Your task to perform on an android device: turn on javascript in the chrome app Image 0: 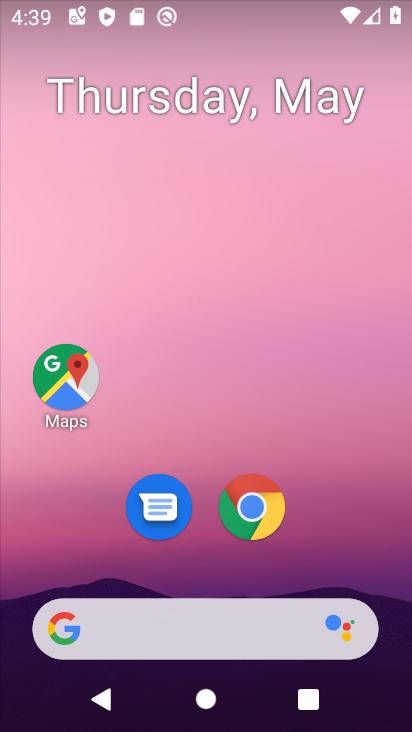
Step 0: click (180, 126)
Your task to perform on an android device: turn on javascript in the chrome app Image 1: 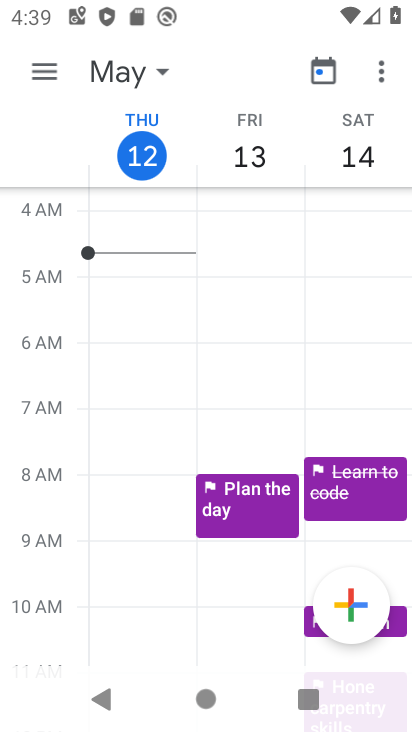
Step 1: drag from (305, 561) to (147, 185)
Your task to perform on an android device: turn on javascript in the chrome app Image 2: 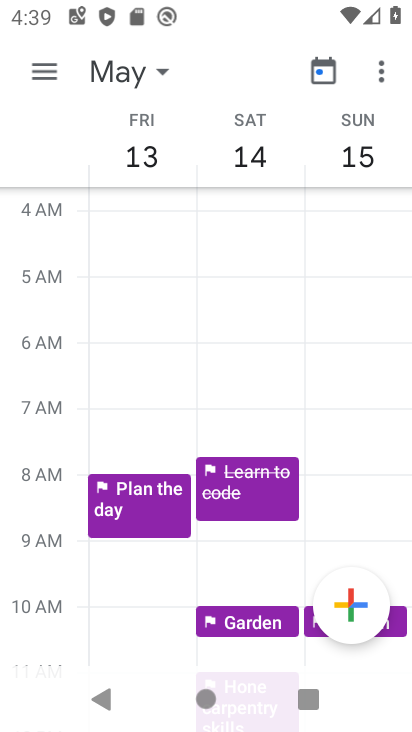
Step 2: press back button
Your task to perform on an android device: turn on javascript in the chrome app Image 3: 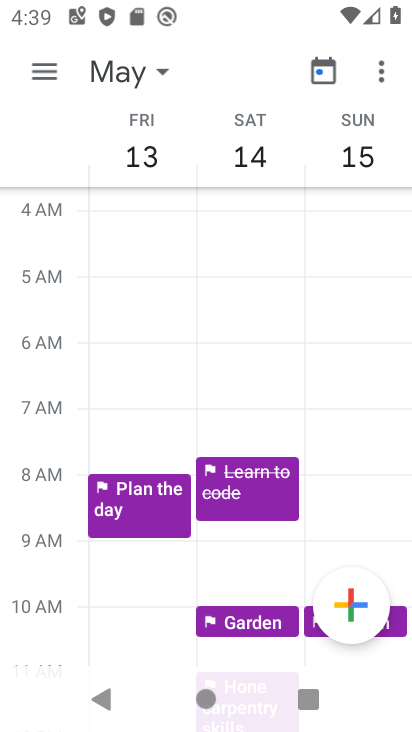
Step 3: press back button
Your task to perform on an android device: turn on javascript in the chrome app Image 4: 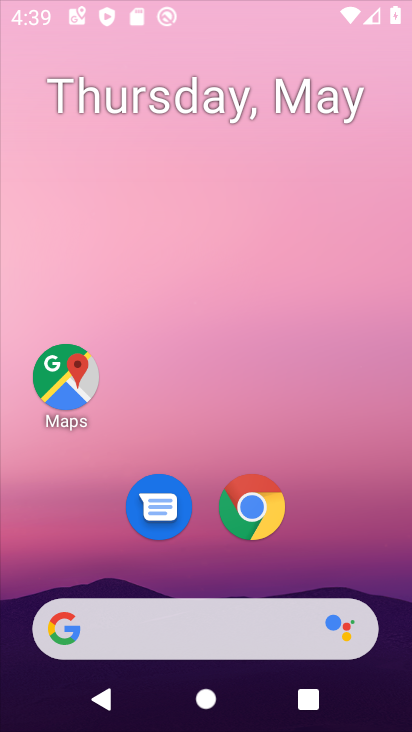
Step 4: press back button
Your task to perform on an android device: turn on javascript in the chrome app Image 5: 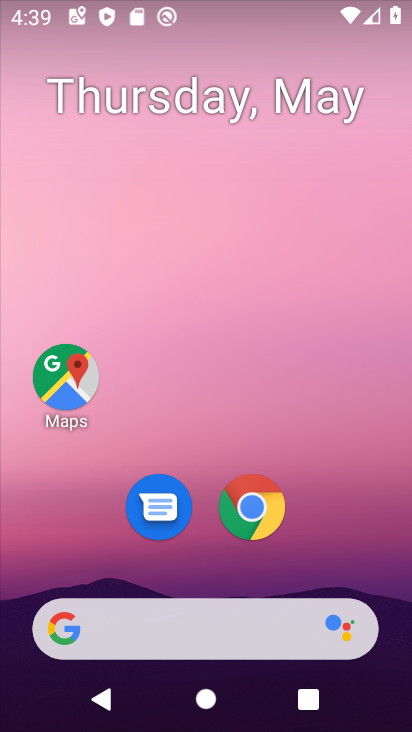
Step 5: press back button
Your task to perform on an android device: turn on javascript in the chrome app Image 6: 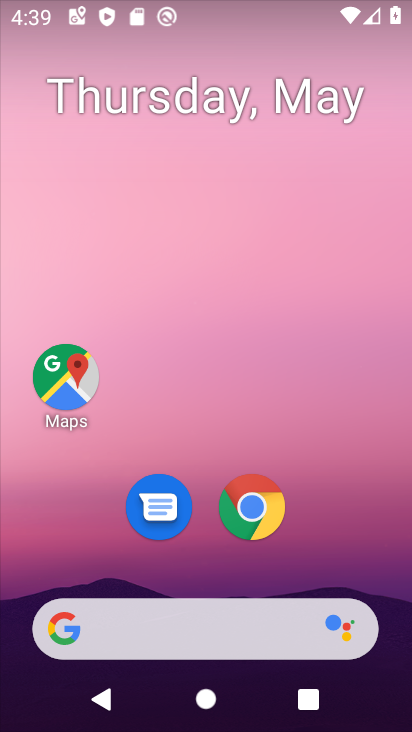
Step 6: press back button
Your task to perform on an android device: turn on javascript in the chrome app Image 7: 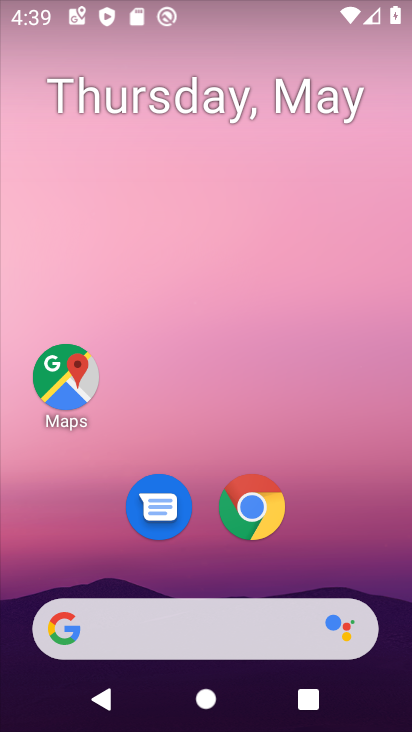
Step 7: click (67, 111)
Your task to perform on an android device: turn on javascript in the chrome app Image 8: 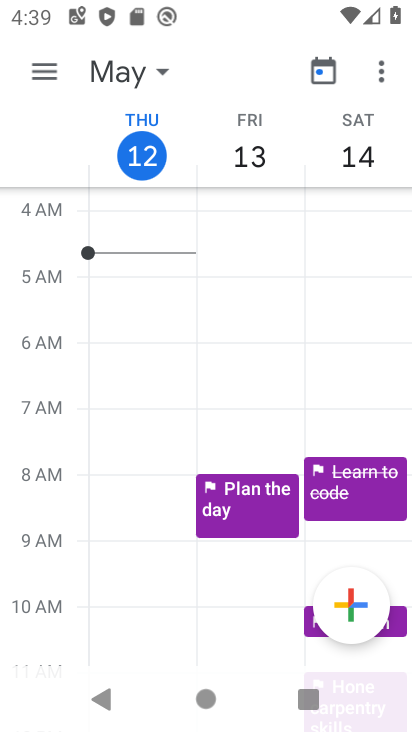
Step 8: press home button
Your task to perform on an android device: turn on javascript in the chrome app Image 9: 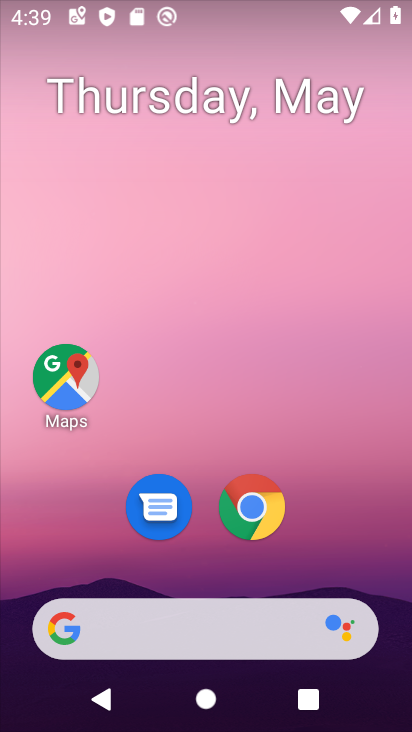
Step 9: drag from (341, 570) to (144, 133)
Your task to perform on an android device: turn on javascript in the chrome app Image 10: 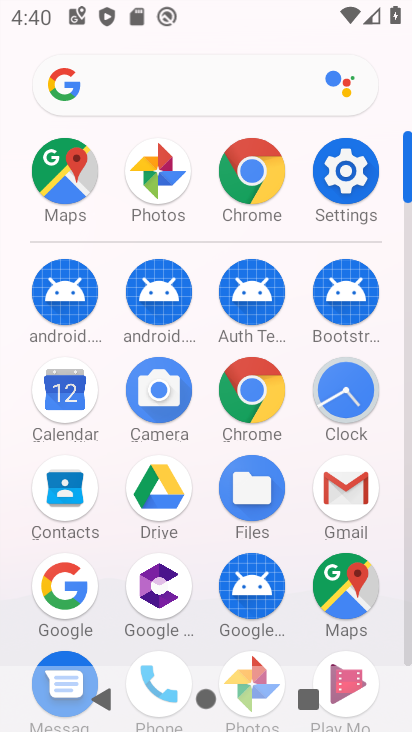
Step 10: drag from (320, 493) to (146, 80)
Your task to perform on an android device: turn on javascript in the chrome app Image 11: 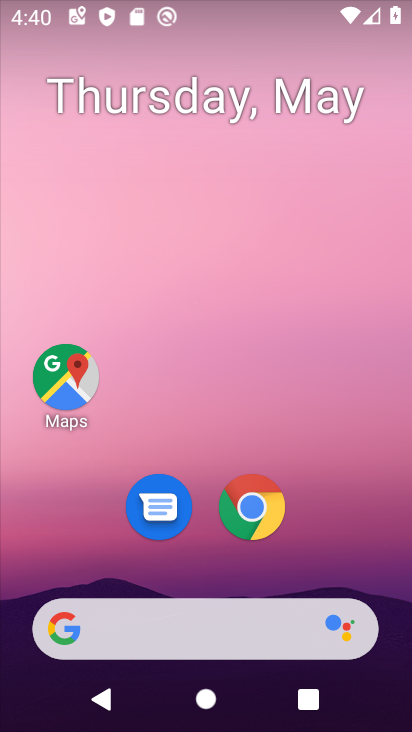
Step 11: click (94, 132)
Your task to perform on an android device: turn on javascript in the chrome app Image 12: 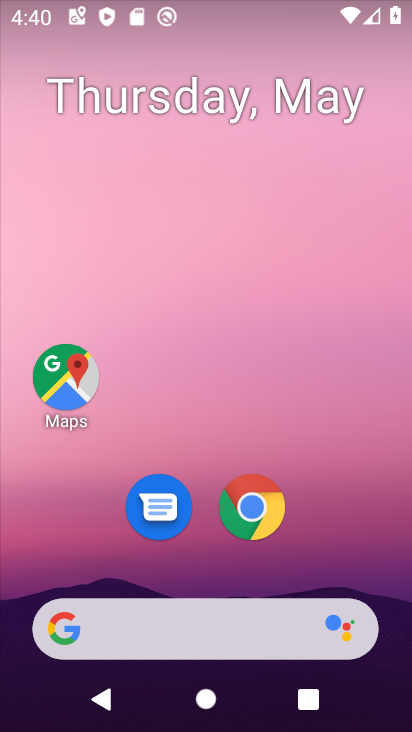
Step 12: drag from (278, 495) to (119, 23)
Your task to perform on an android device: turn on javascript in the chrome app Image 13: 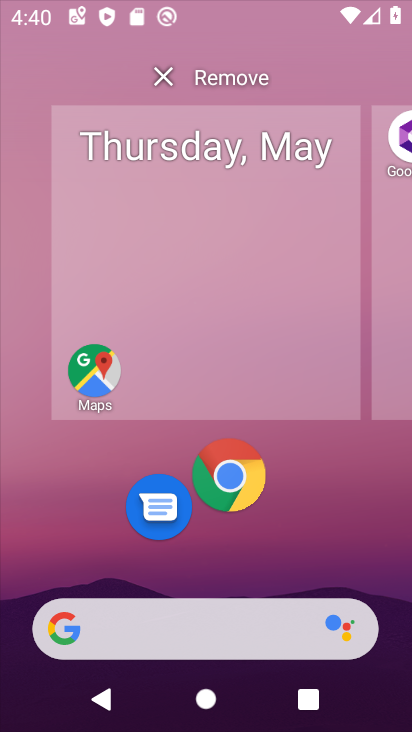
Step 13: drag from (258, 470) to (97, 18)
Your task to perform on an android device: turn on javascript in the chrome app Image 14: 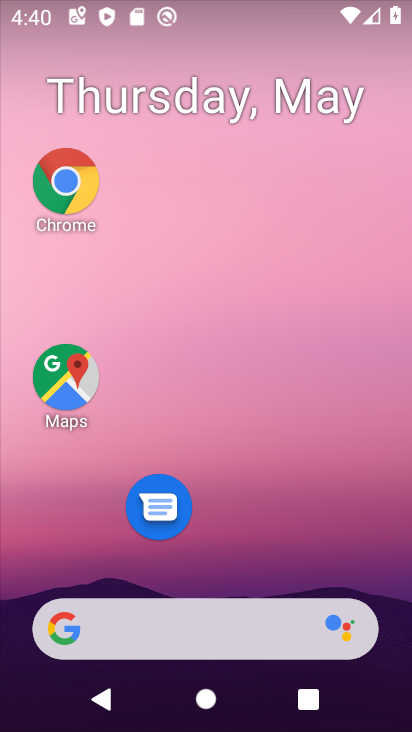
Step 14: drag from (341, 608) to (256, 162)
Your task to perform on an android device: turn on javascript in the chrome app Image 15: 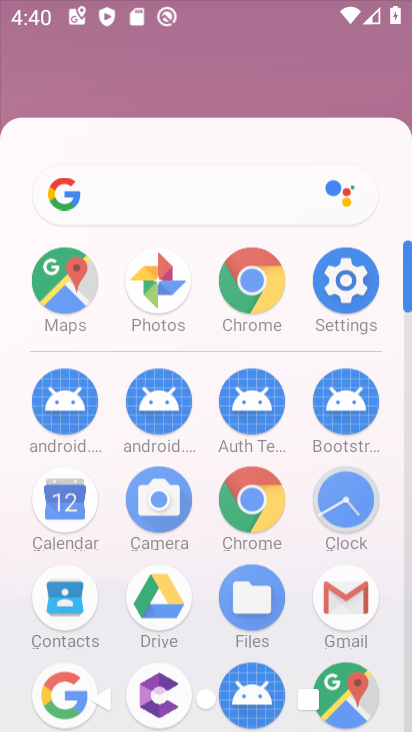
Step 15: click (249, 168)
Your task to perform on an android device: turn on javascript in the chrome app Image 16: 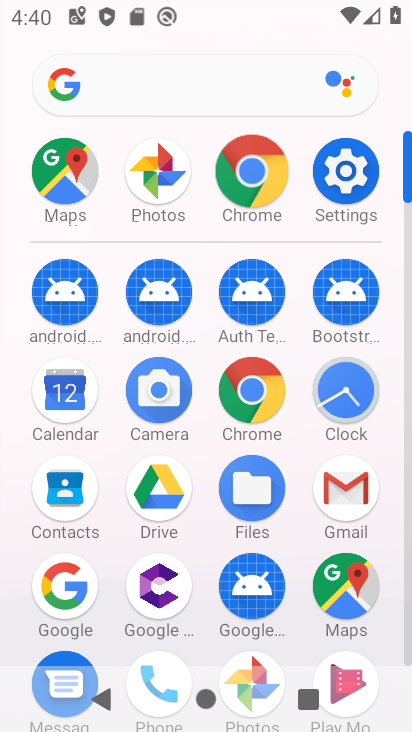
Step 16: click (256, 171)
Your task to perform on an android device: turn on javascript in the chrome app Image 17: 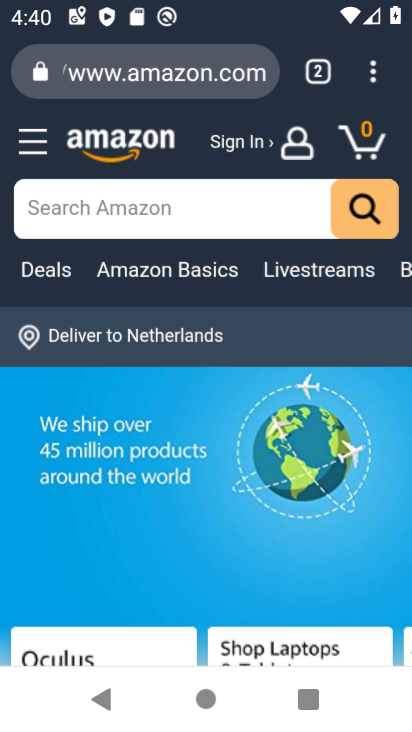
Step 17: click (255, 504)
Your task to perform on an android device: turn on javascript in the chrome app Image 18: 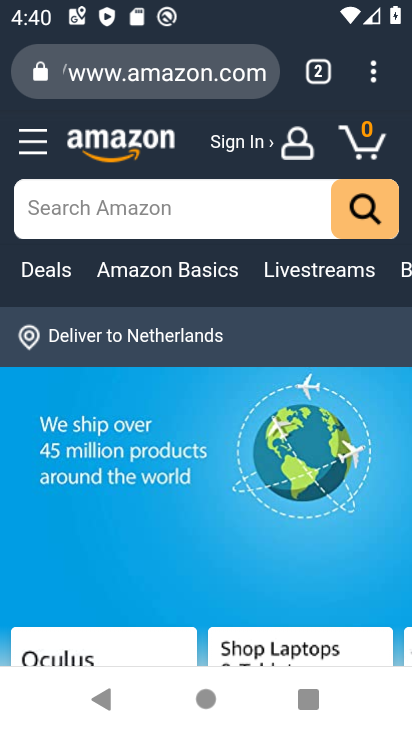
Step 18: click (252, 502)
Your task to perform on an android device: turn on javascript in the chrome app Image 19: 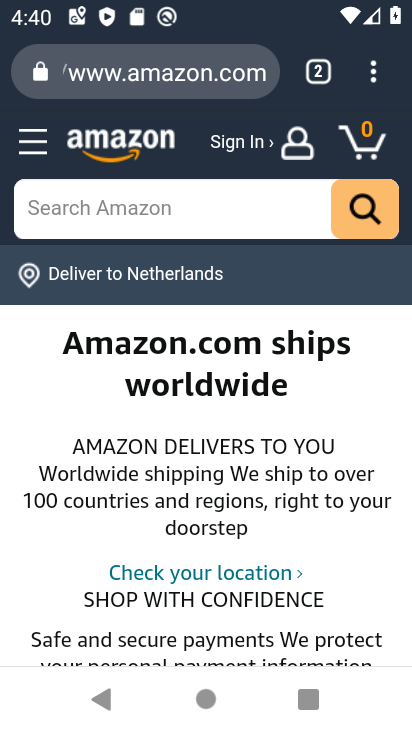
Step 19: click (77, 155)
Your task to perform on an android device: turn on javascript in the chrome app Image 20: 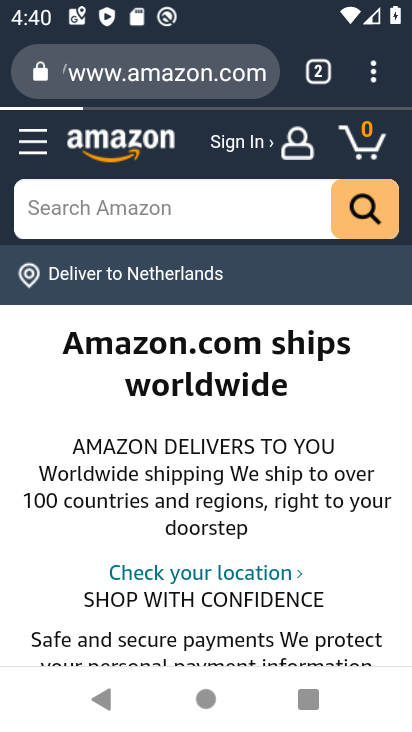
Step 20: click (248, 280)
Your task to perform on an android device: turn on javascript in the chrome app Image 21: 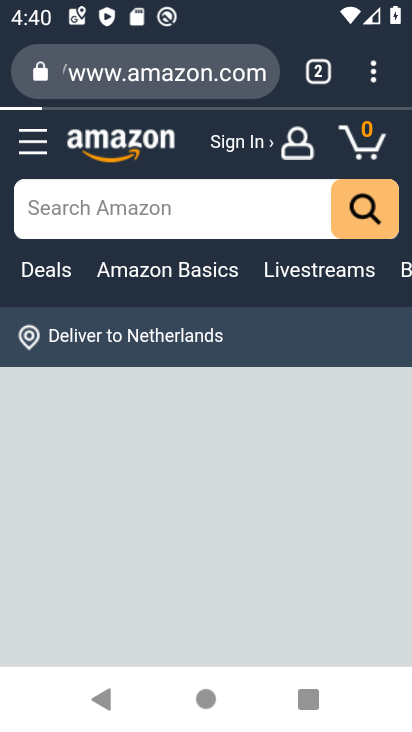
Step 21: drag from (369, 82) to (119, 509)
Your task to perform on an android device: turn on javascript in the chrome app Image 22: 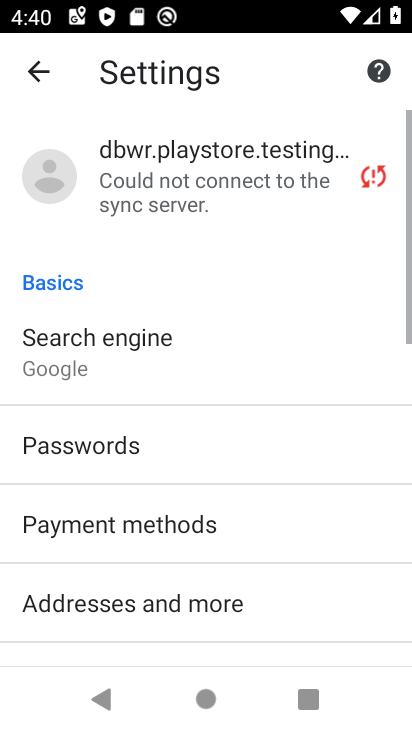
Step 22: click (119, 501)
Your task to perform on an android device: turn on javascript in the chrome app Image 23: 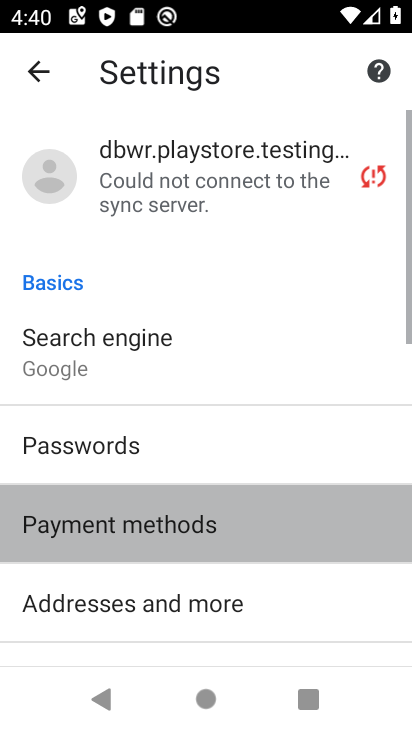
Step 23: click (138, 505)
Your task to perform on an android device: turn on javascript in the chrome app Image 24: 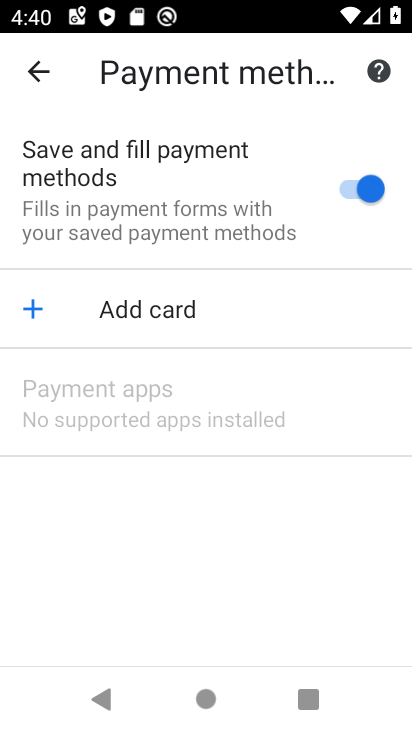
Step 24: click (22, 64)
Your task to perform on an android device: turn on javascript in the chrome app Image 25: 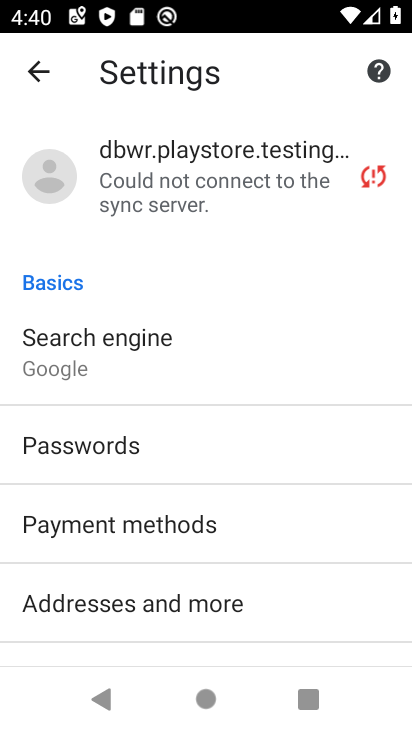
Step 25: click (121, 184)
Your task to perform on an android device: turn on javascript in the chrome app Image 26: 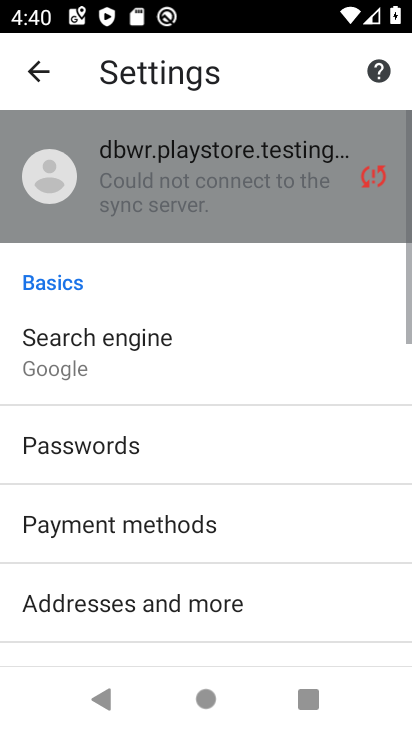
Step 26: drag from (185, 420) to (65, 99)
Your task to perform on an android device: turn on javascript in the chrome app Image 27: 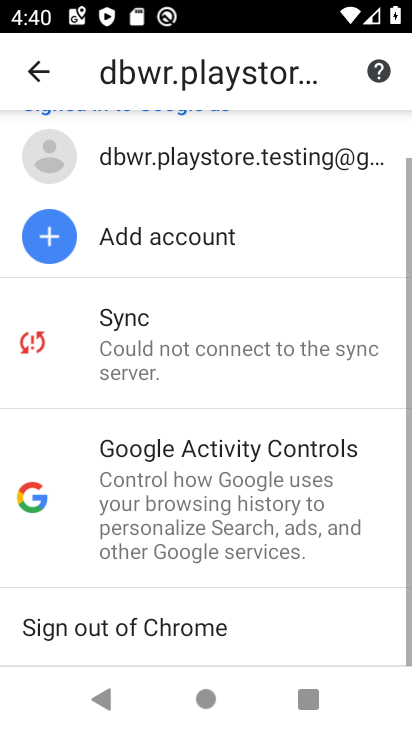
Step 27: drag from (133, 465) to (79, 288)
Your task to perform on an android device: turn on javascript in the chrome app Image 28: 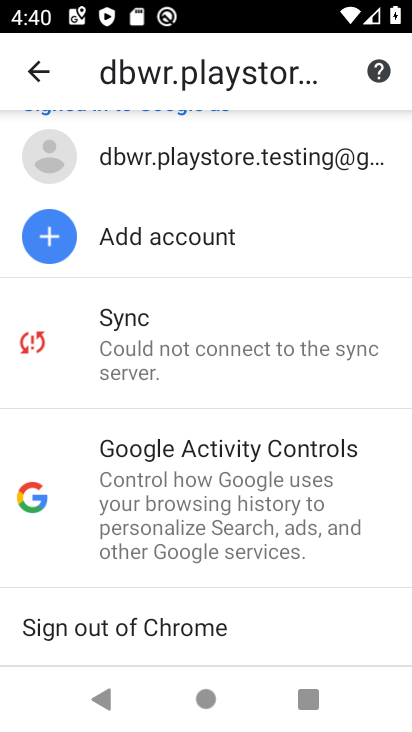
Step 28: click (36, 76)
Your task to perform on an android device: turn on javascript in the chrome app Image 29: 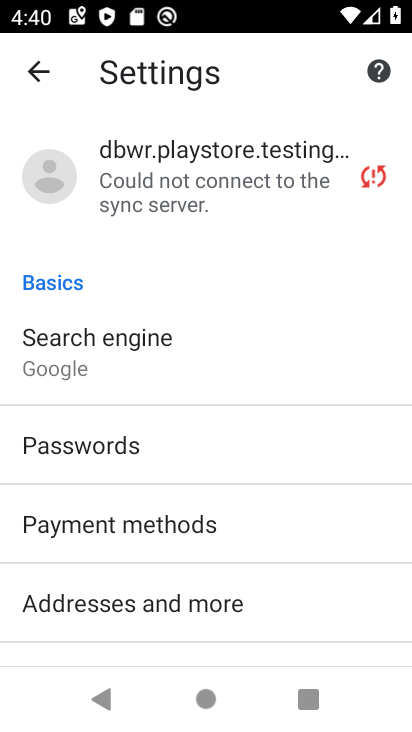
Step 29: drag from (132, 570) to (62, 322)
Your task to perform on an android device: turn on javascript in the chrome app Image 30: 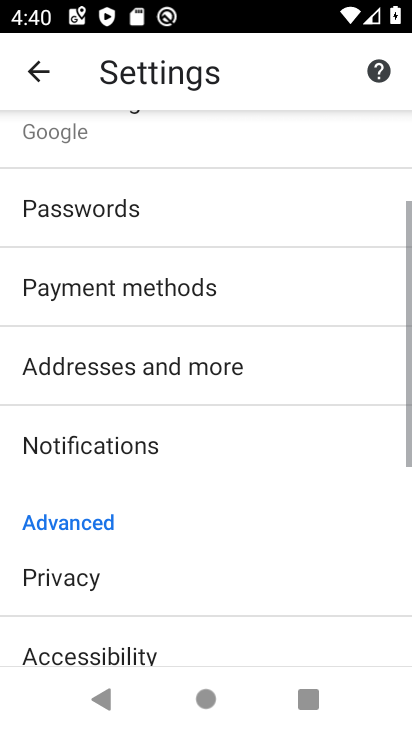
Step 30: drag from (159, 358) to (96, 148)
Your task to perform on an android device: turn on javascript in the chrome app Image 31: 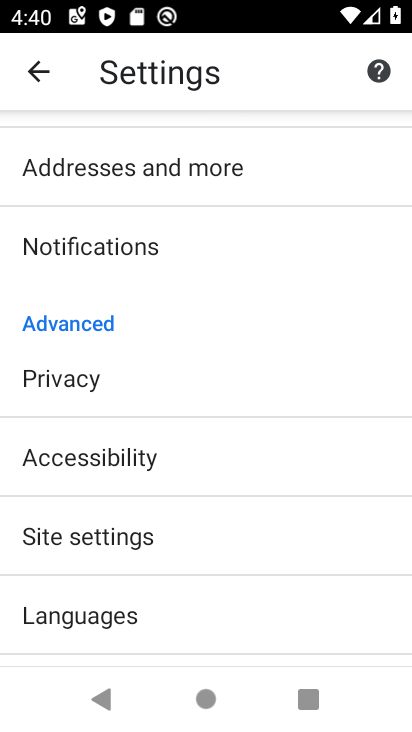
Step 31: drag from (165, 555) to (101, 136)
Your task to perform on an android device: turn on javascript in the chrome app Image 32: 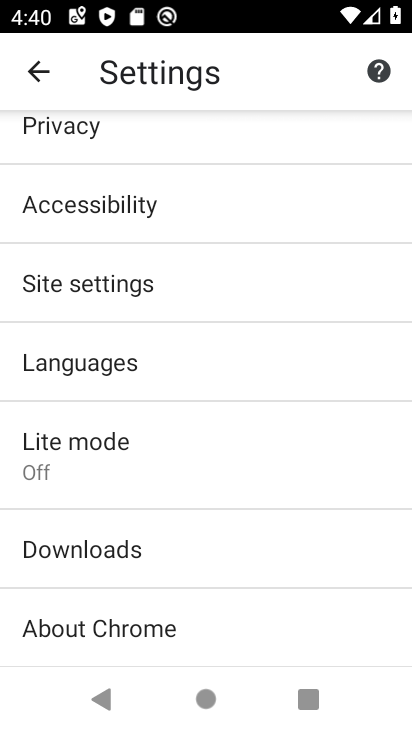
Step 32: click (69, 289)
Your task to perform on an android device: turn on javascript in the chrome app Image 33: 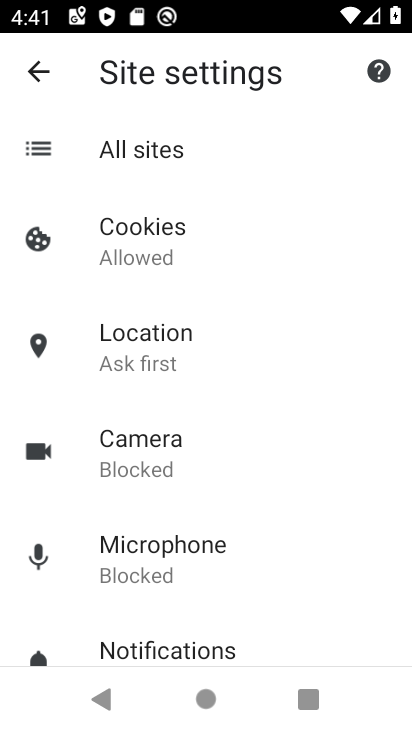
Step 33: click (150, 145)
Your task to perform on an android device: turn on javascript in the chrome app Image 34: 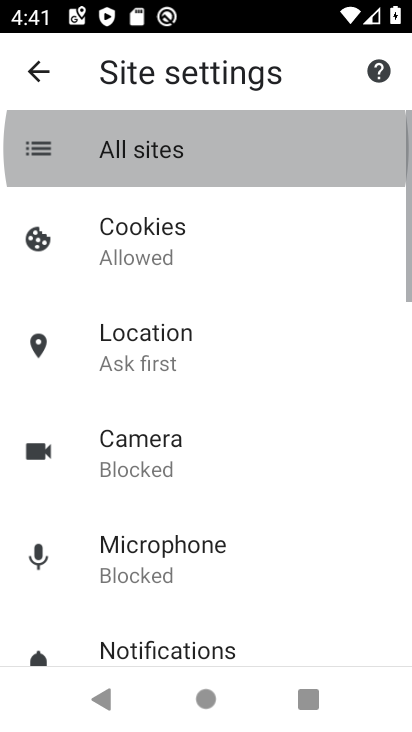
Step 34: click (149, 5)
Your task to perform on an android device: turn on javascript in the chrome app Image 35: 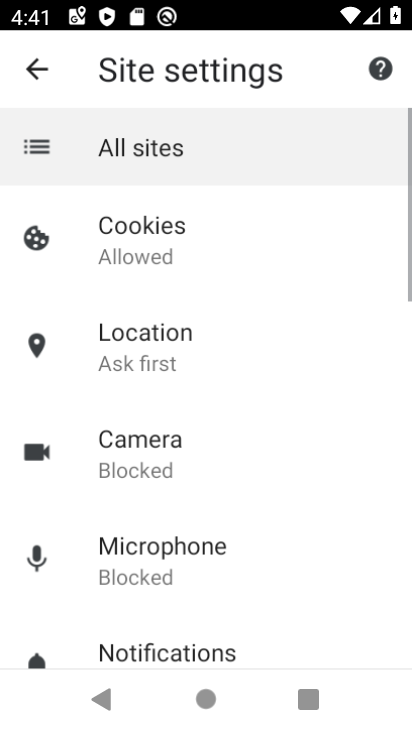
Step 35: drag from (192, 392) to (182, 120)
Your task to perform on an android device: turn on javascript in the chrome app Image 36: 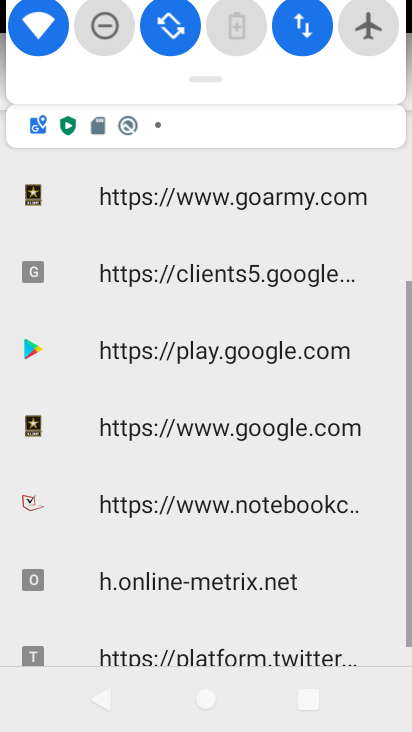
Step 36: drag from (137, 507) to (71, 183)
Your task to perform on an android device: turn on javascript in the chrome app Image 37: 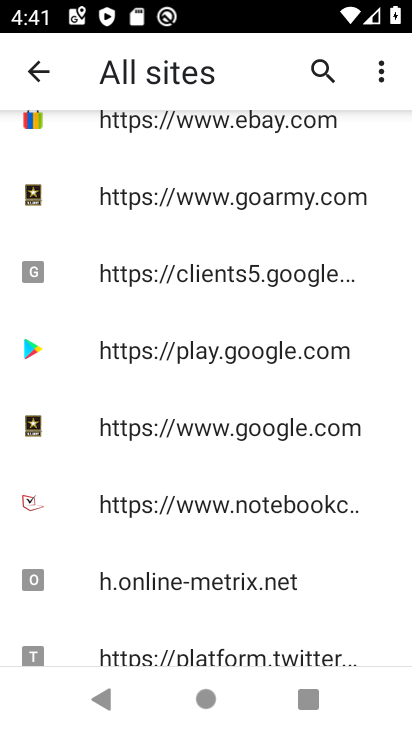
Step 37: click (25, 57)
Your task to perform on an android device: turn on javascript in the chrome app Image 38: 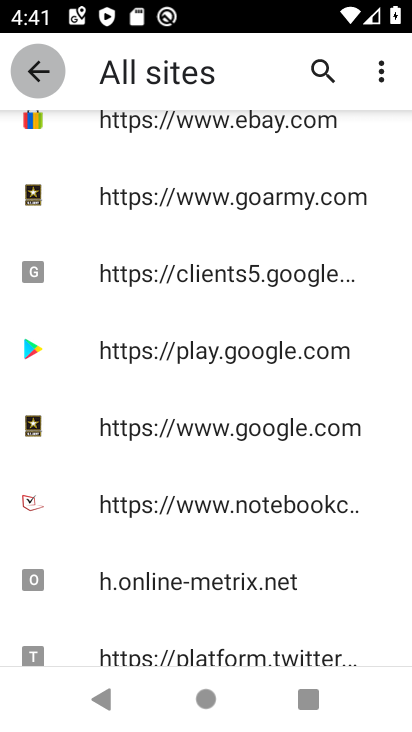
Step 38: click (27, 59)
Your task to perform on an android device: turn on javascript in the chrome app Image 39: 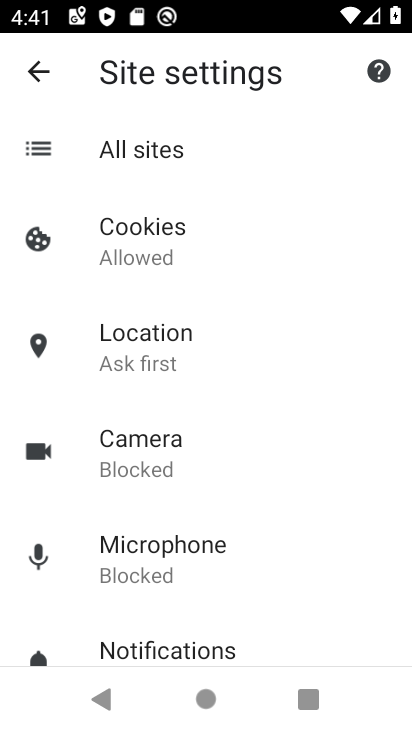
Step 39: drag from (181, 563) to (140, 153)
Your task to perform on an android device: turn on javascript in the chrome app Image 40: 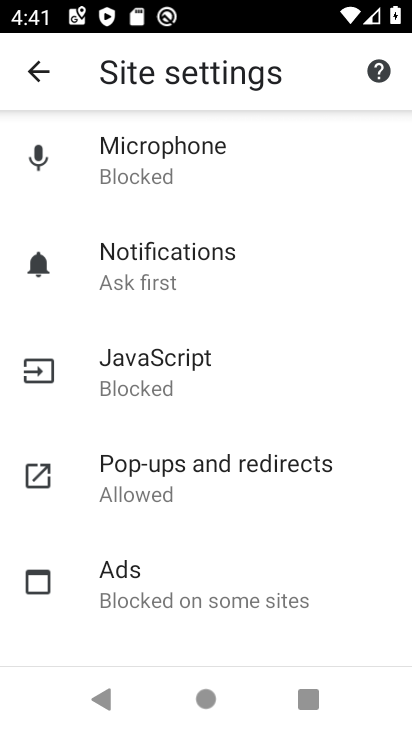
Step 40: click (139, 369)
Your task to perform on an android device: turn on javascript in the chrome app Image 41: 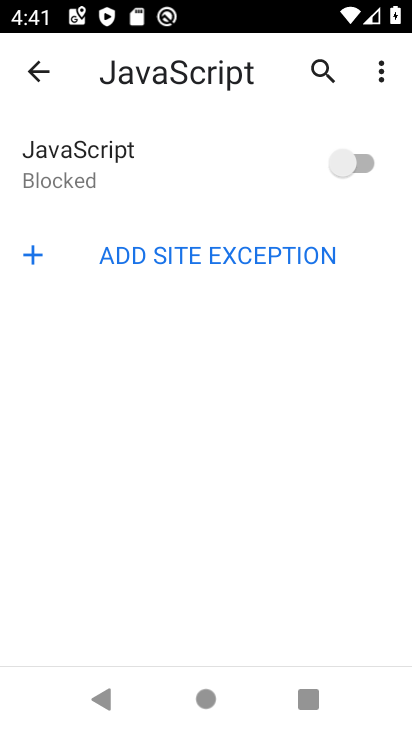
Step 41: click (347, 152)
Your task to perform on an android device: turn on javascript in the chrome app Image 42: 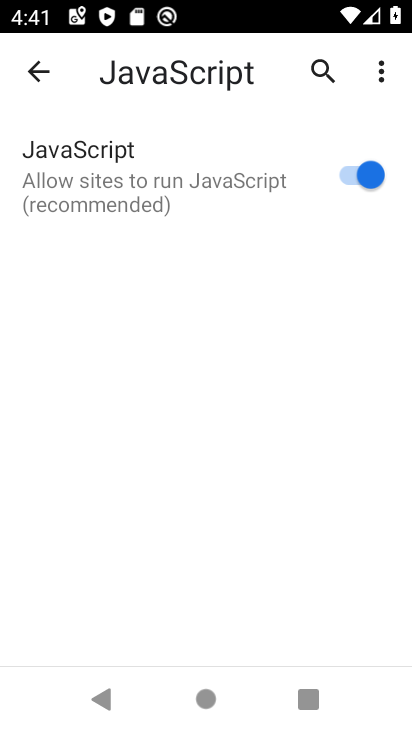
Step 42: task complete